Your task to perform on an android device: install app "Spotify" Image 0: 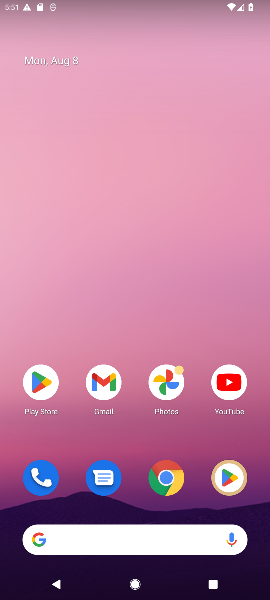
Step 0: click (144, 338)
Your task to perform on an android device: install app "Spotify" Image 1: 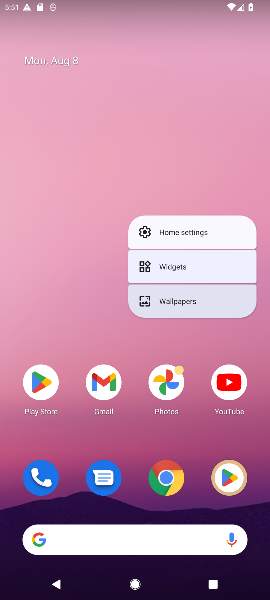
Step 1: click (44, 380)
Your task to perform on an android device: install app "Spotify" Image 2: 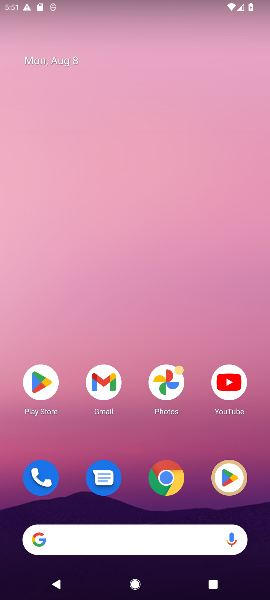
Step 2: click (44, 379)
Your task to perform on an android device: install app "Spotify" Image 3: 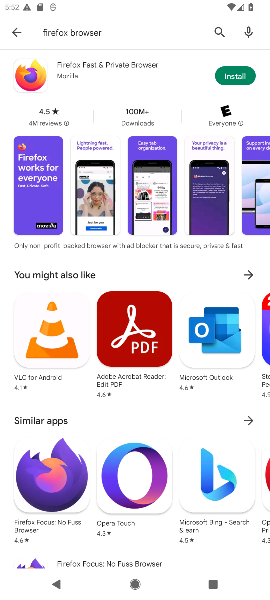
Step 3: click (211, 24)
Your task to perform on an android device: install app "Spotify" Image 4: 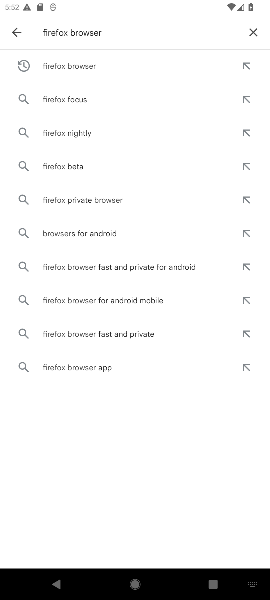
Step 4: click (253, 30)
Your task to perform on an android device: install app "Spotify" Image 5: 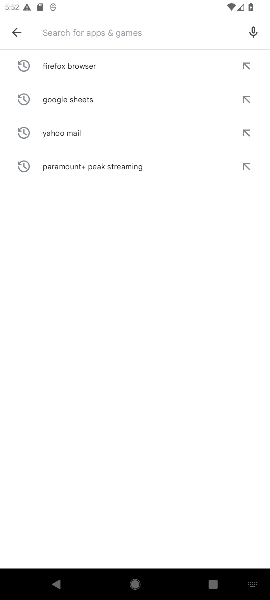
Step 5: type "spotity"
Your task to perform on an android device: install app "Spotify" Image 6: 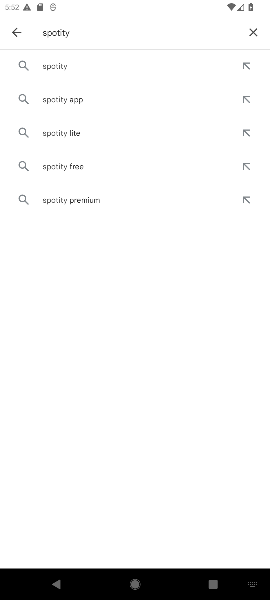
Step 6: click (82, 94)
Your task to perform on an android device: install app "Spotify" Image 7: 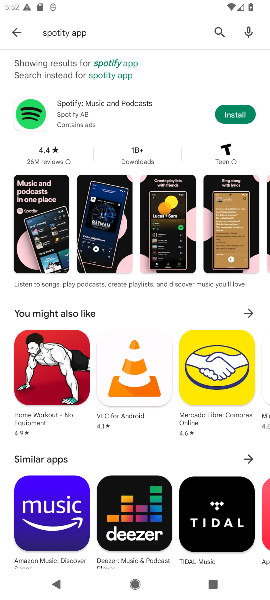
Step 7: click (228, 116)
Your task to perform on an android device: install app "Spotify" Image 8: 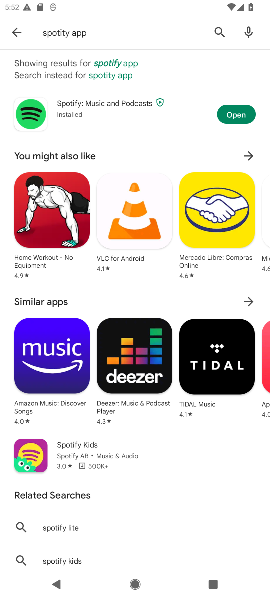
Step 8: task complete